Your task to perform on an android device: turn off airplane mode Image 0: 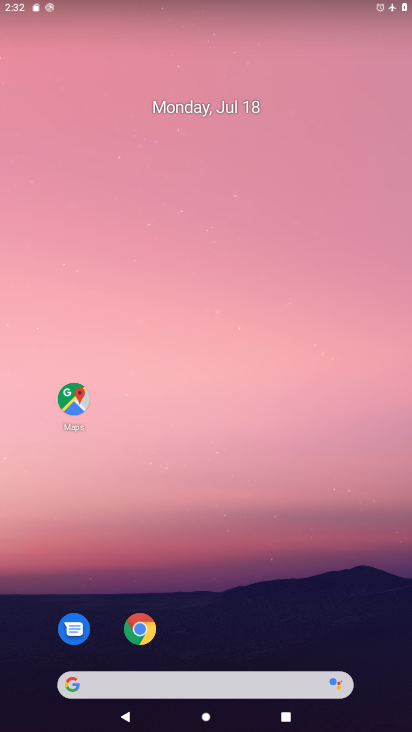
Step 0: drag from (204, 641) to (260, 136)
Your task to perform on an android device: turn off airplane mode Image 1: 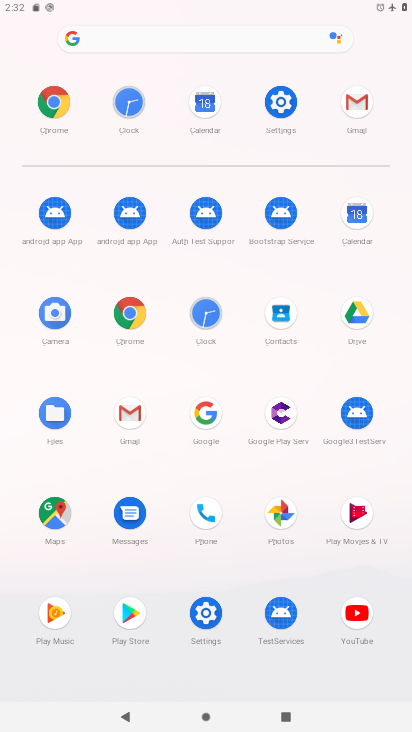
Step 1: click (272, 114)
Your task to perform on an android device: turn off airplane mode Image 2: 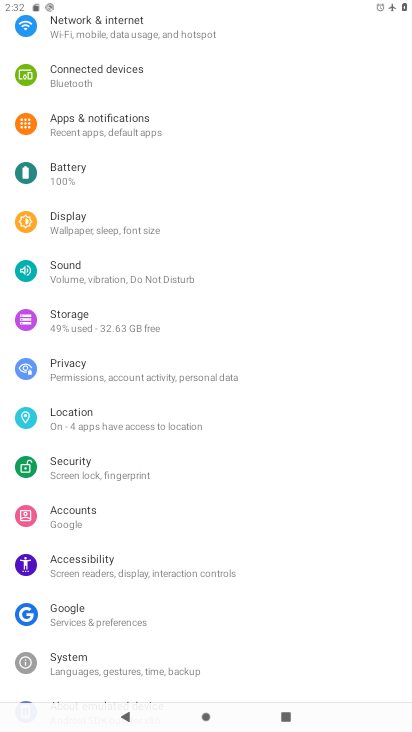
Step 2: click (143, 34)
Your task to perform on an android device: turn off airplane mode Image 3: 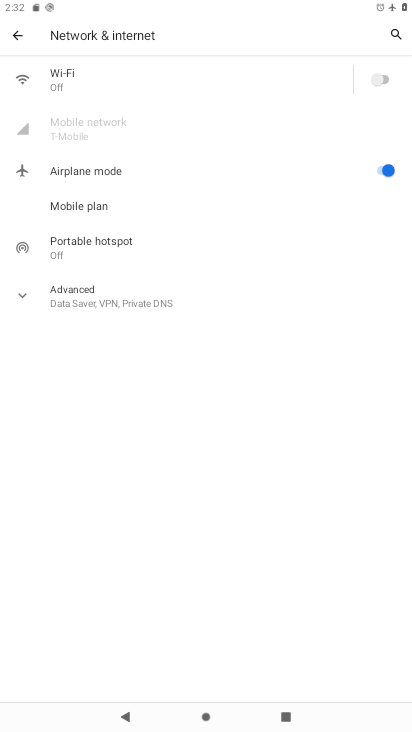
Step 3: click (376, 176)
Your task to perform on an android device: turn off airplane mode Image 4: 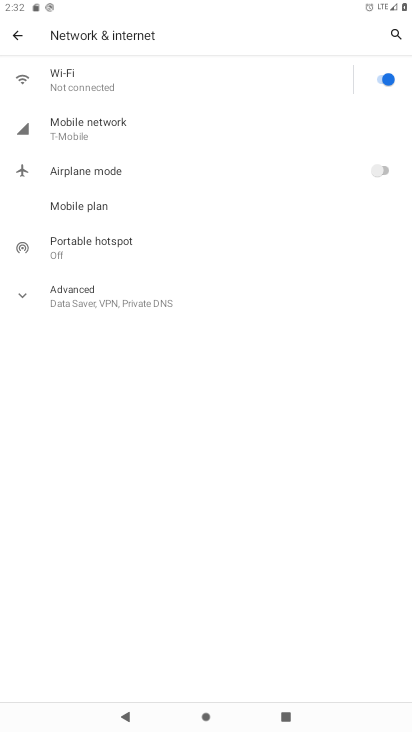
Step 4: task complete